Your task to perform on an android device: add a contact Image 0: 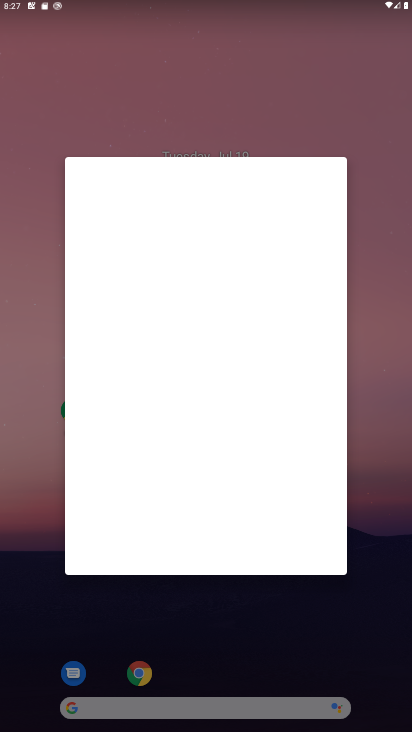
Step 0: drag from (338, 634) to (319, 52)
Your task to perform on an android device: add a contact Image 1: 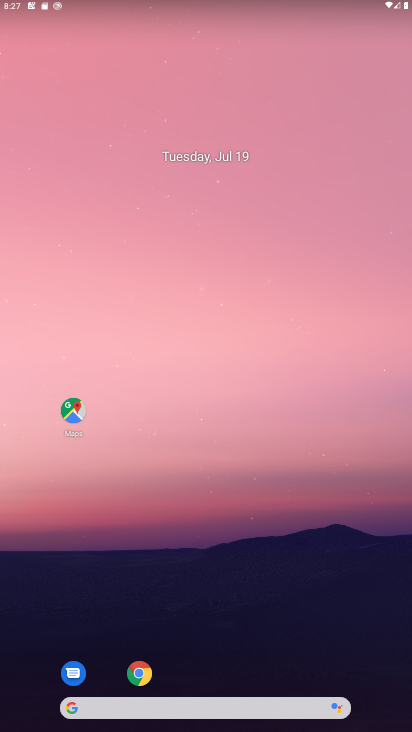
Step 1: press home button
Your task to perform on an android device: add a contact Image 2: 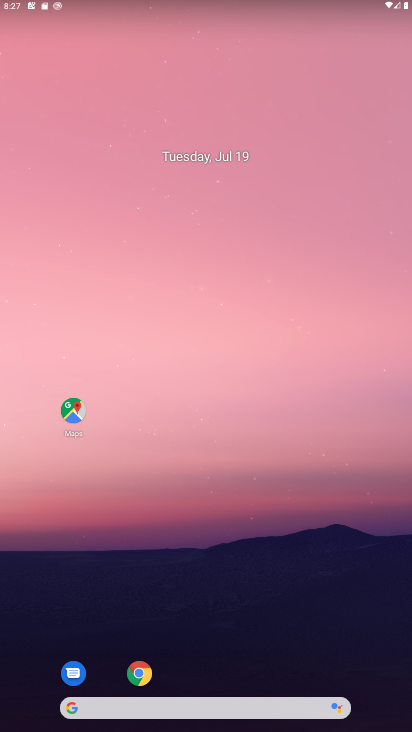
Step 2: drag from (352, 659) to (311, 63)
Your task to perform on an android device: add a contact Image 3: 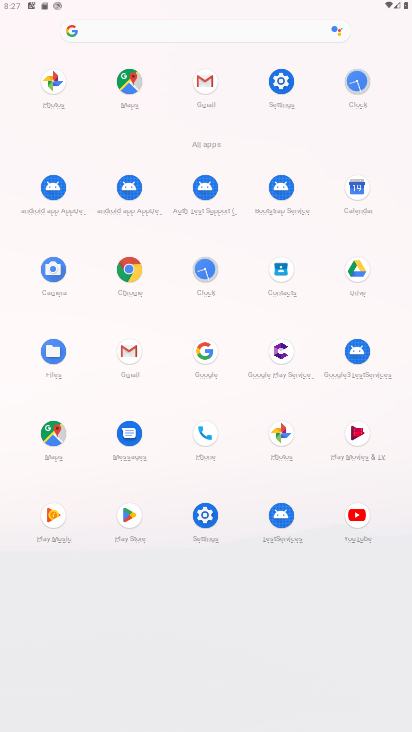
Step 3: click (275, 269)
Your task to perform on an android device: add a contact Image 4: 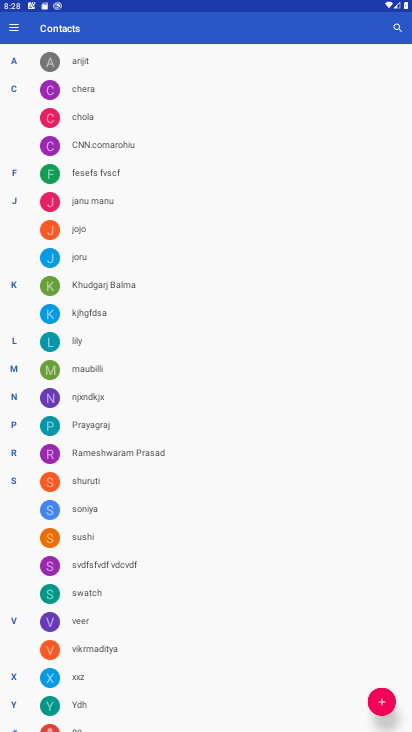
Step 4: click (382, 703)
Your task to perform on an android device: add a contact Image 5: 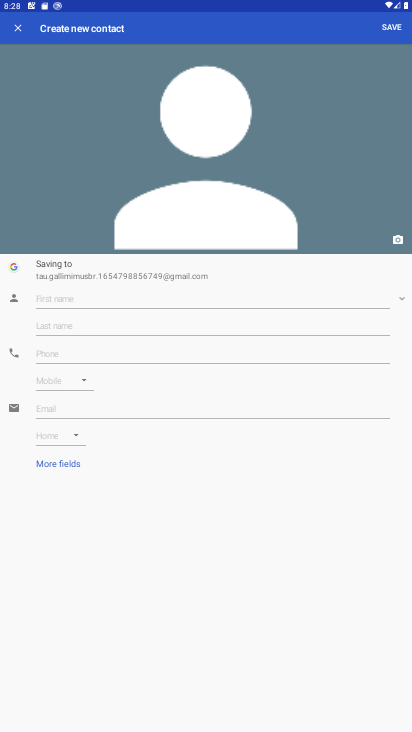
Step 5: click (85, 300)
Your task to perform on an android device: add a contact Image 6: 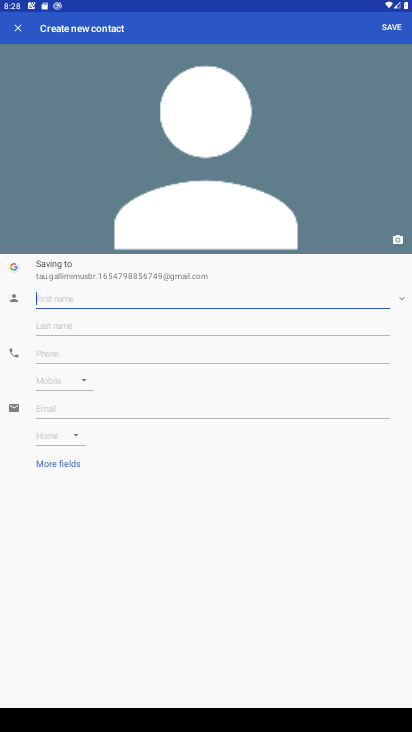
Step 6: type "oiuyt"
Your task to perform on an android device: add a contact Image 7: 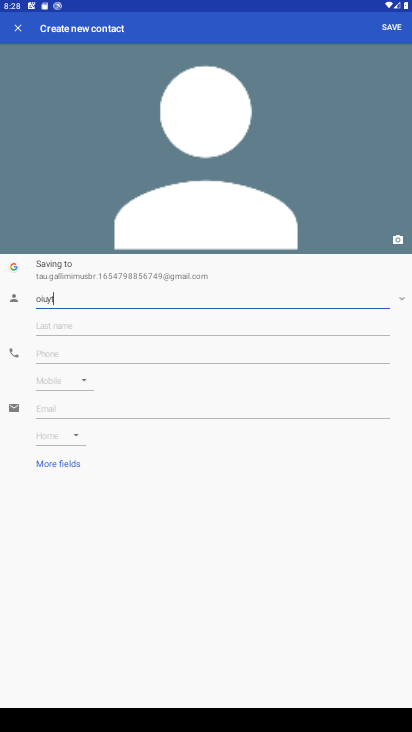
Step 7: click (126, 353)
Your task to perform on an android device: add a contact Image 8: 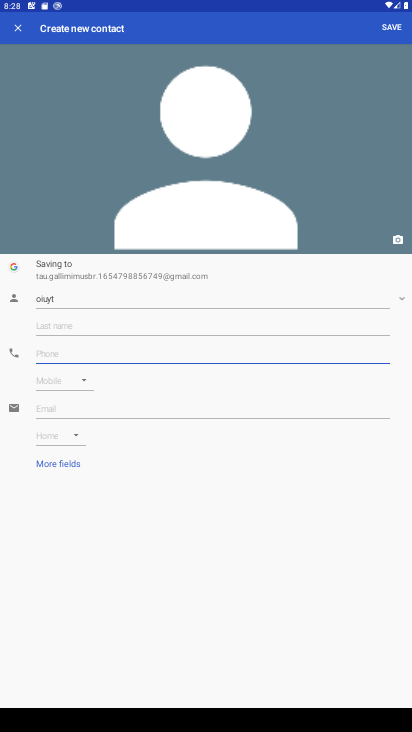
Step 8: type "0987656543"
Your task to perform on an android device: add a contact Image 9: 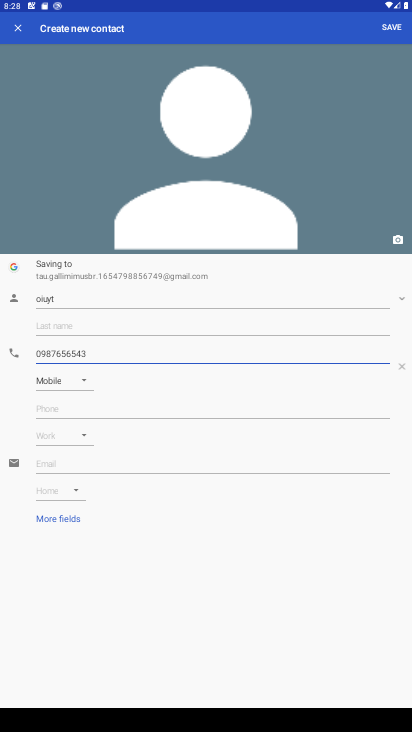
Step 9: click (393, 28)
Your task to perform on an android device: add a contact Image 10: 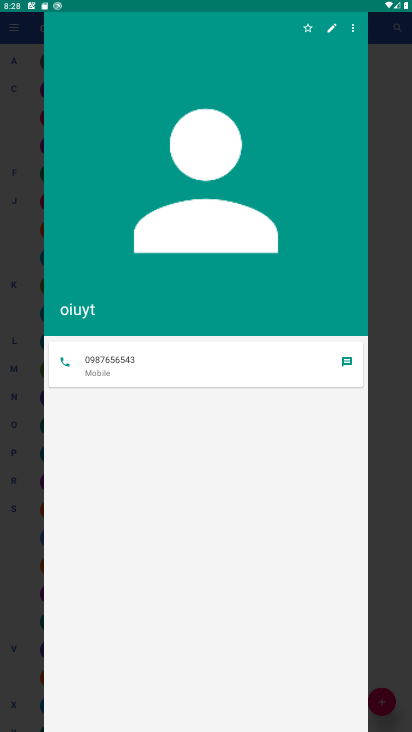
Step 10: task complete